Your task to perform on an android device: Add dell alienware to the cart on bestbuy, then select checkout. Image 0: 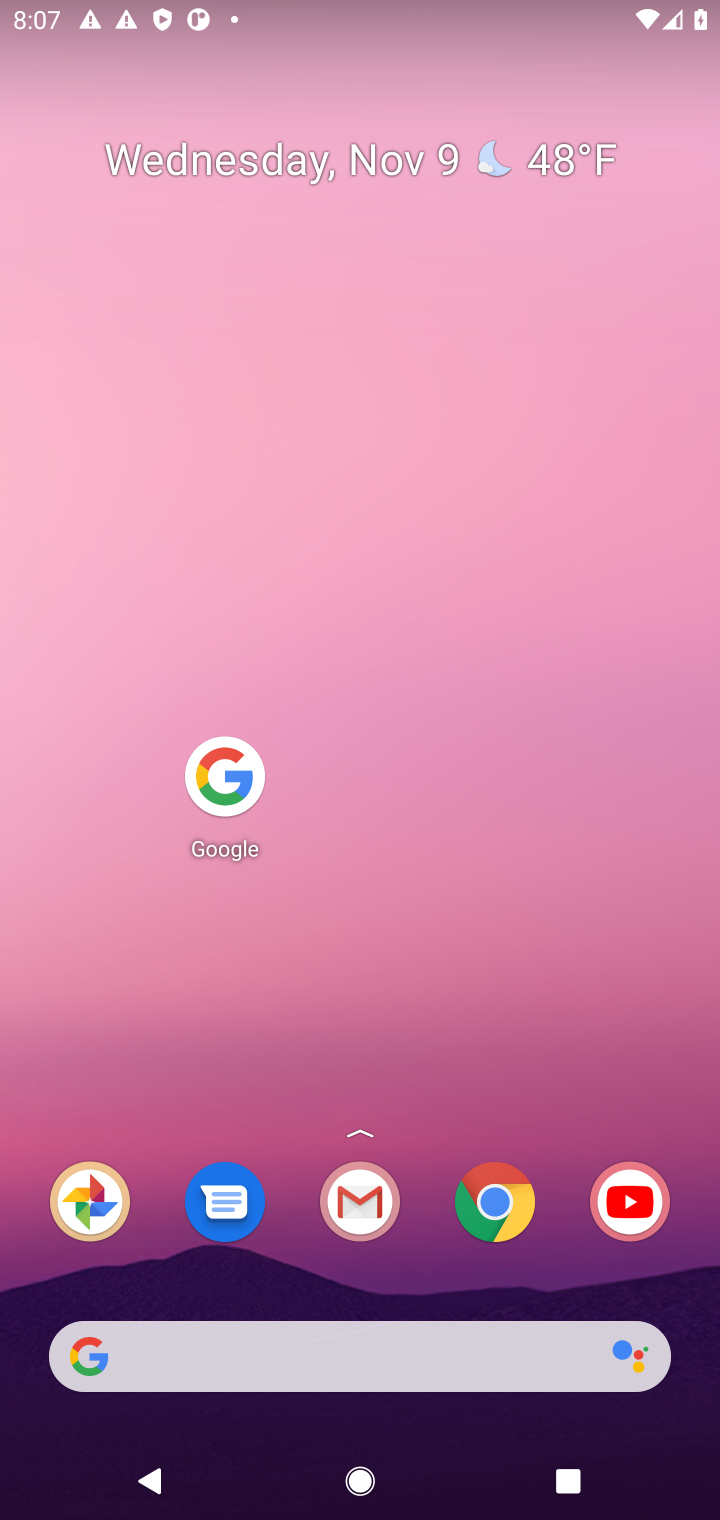
Step 0: click (220, 768)
Your task to perform on an android device: Add dell alienware to the cart on bestbuy, then select checkout. Image 1: 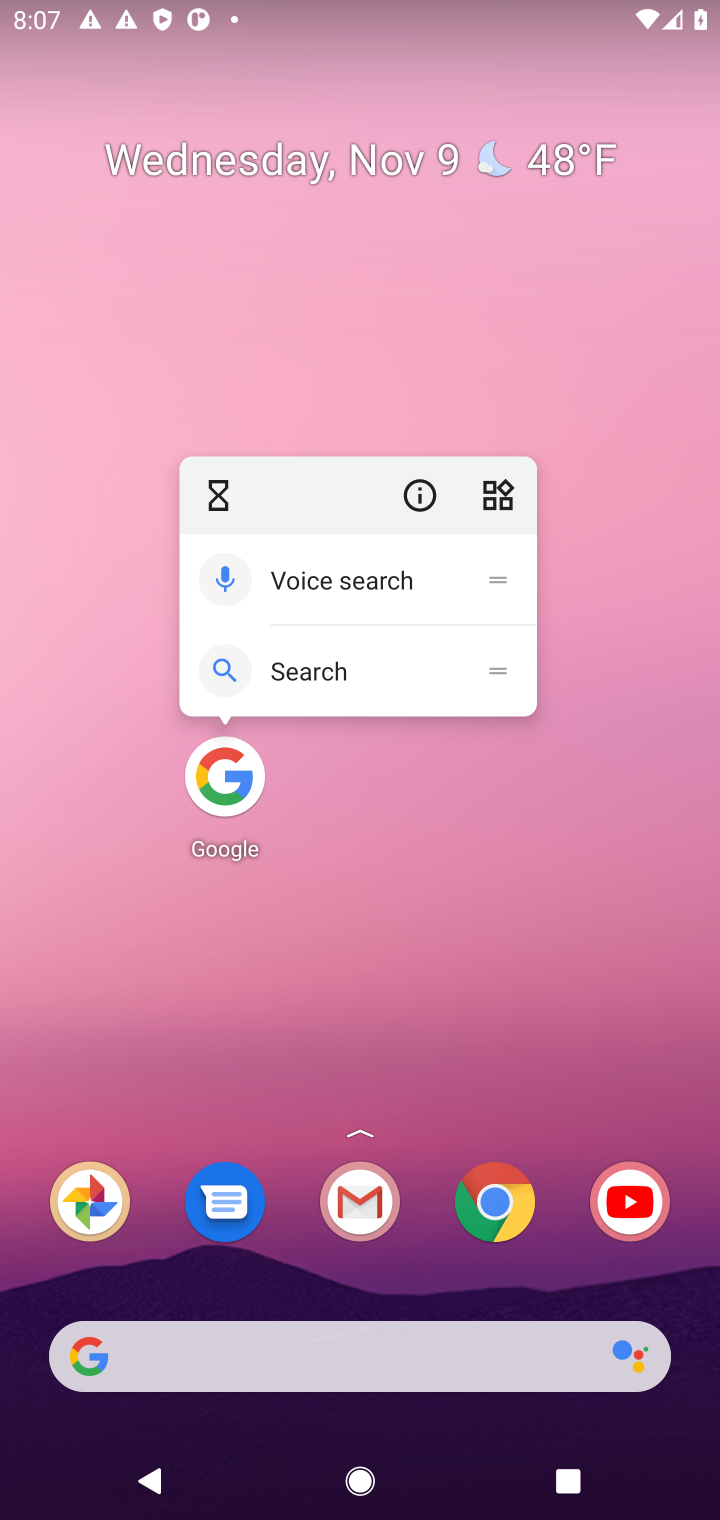
Step 1: click (224, 765)
Your task to perform on an android device: Add dell alienware to the cart on bestbuy, then select checkout. Image 2: 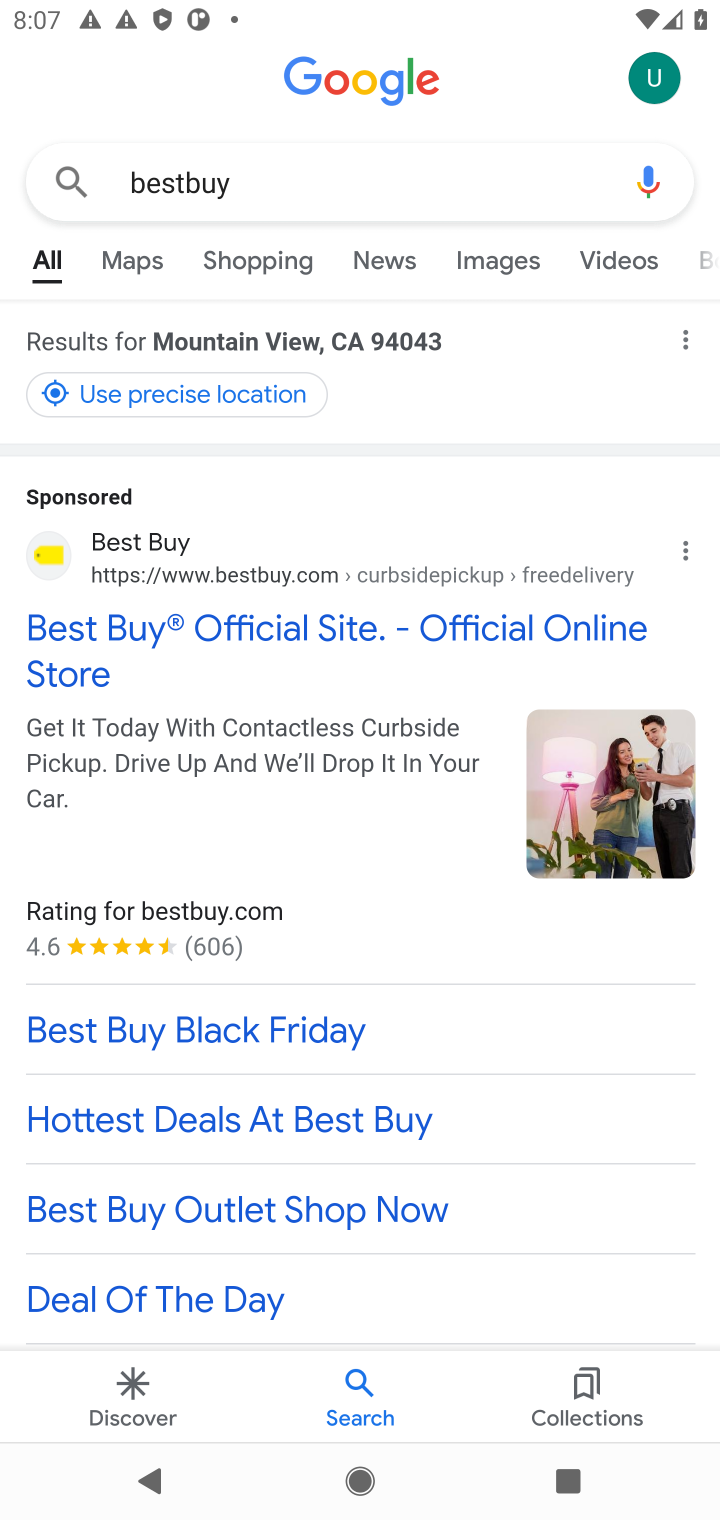
Step 2: click (135, 623)
Your task to perform on an android device: Add dell alienware to the cart on bestbuy, then select checkout. Image 3: 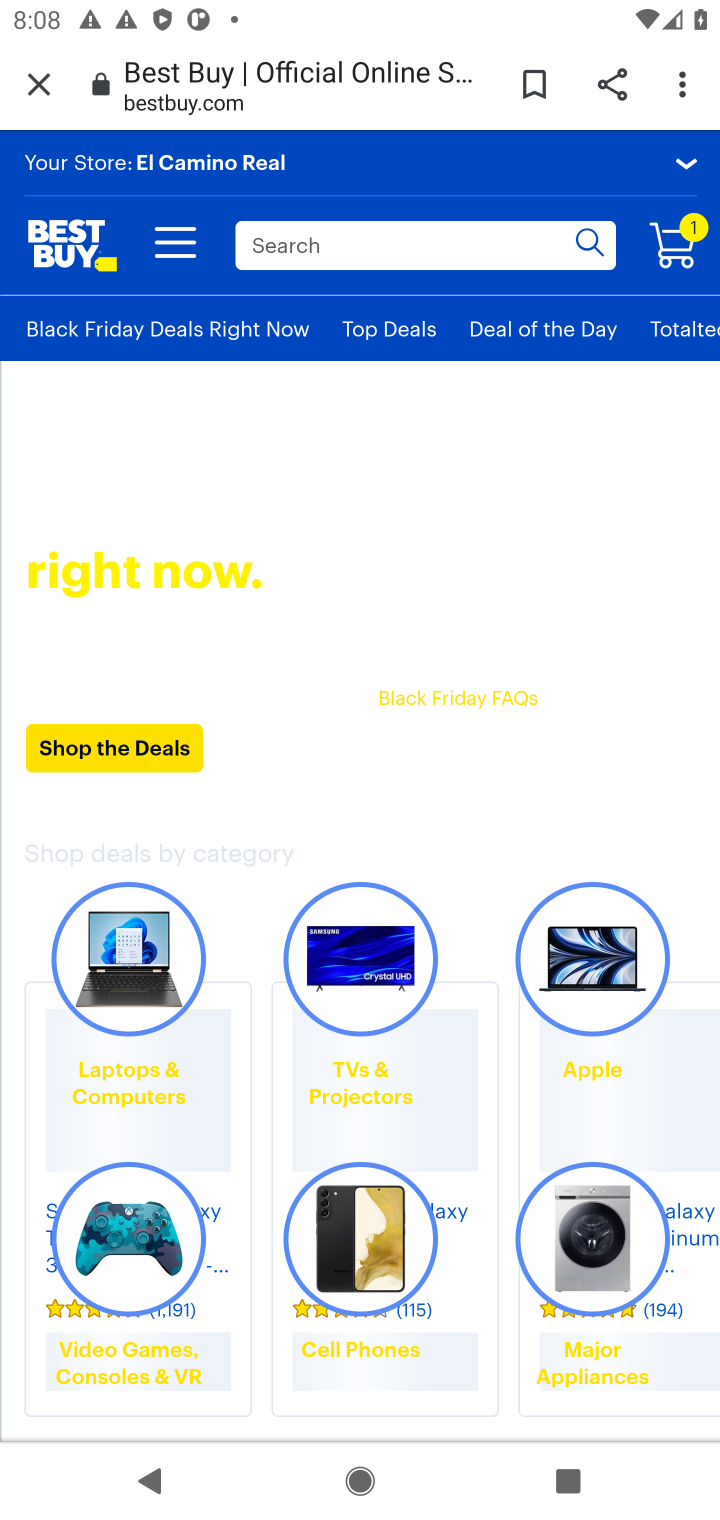
Step 3: press enter
Your task to perform on an android device: Add dell alienware to the cart on bestbuy, then select checkout. Image 4: 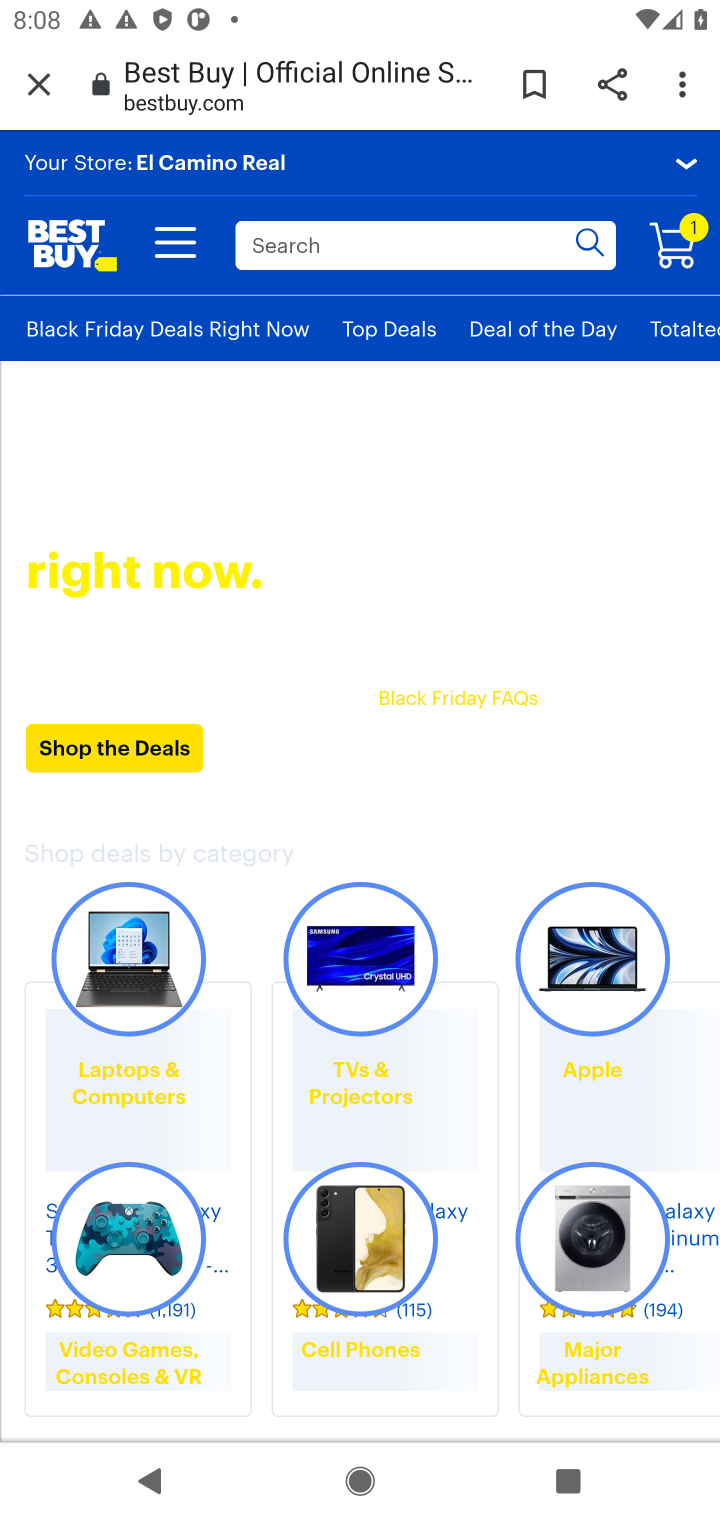
Step 4: type " dell alienware"
Your task to perform on an android device: Add dell alienware to the cart on bestbuy, then select checkout. Image 5: 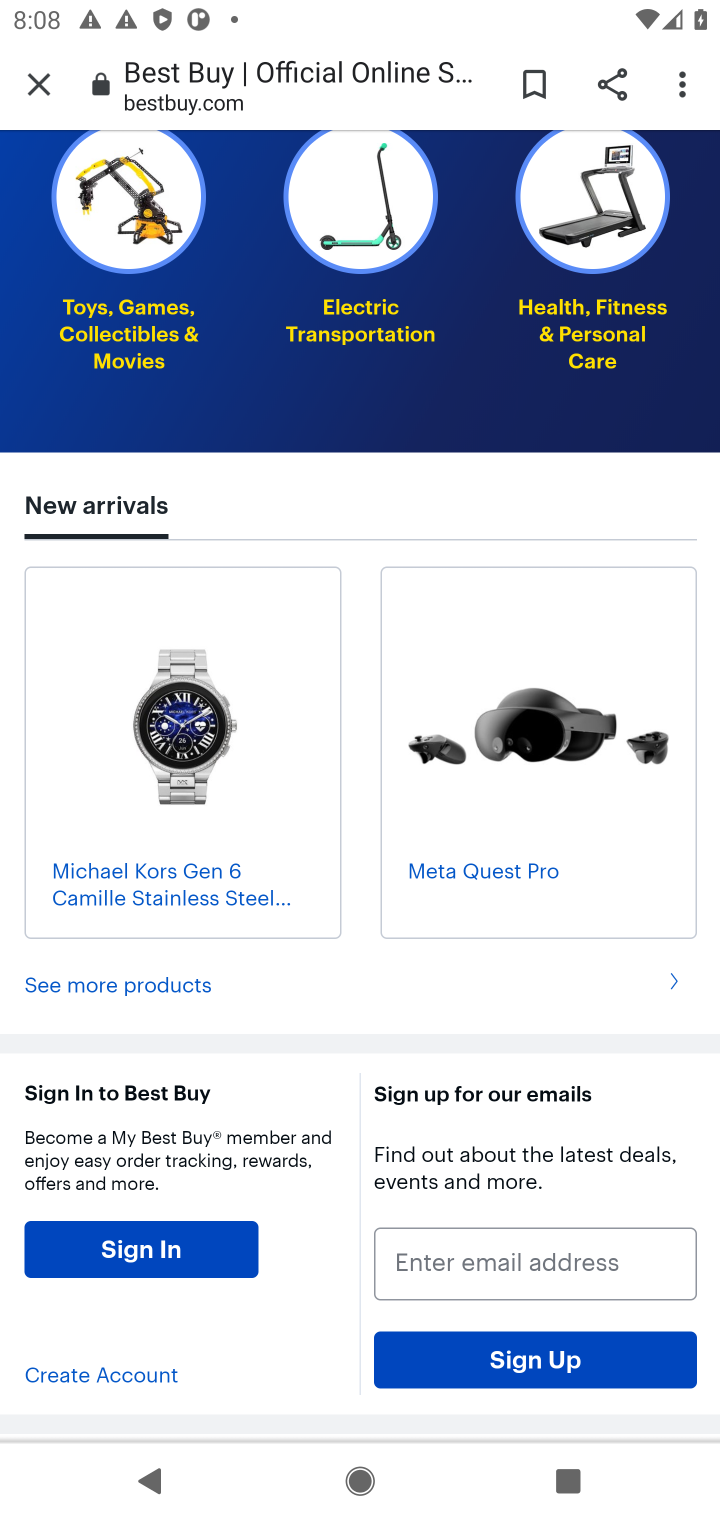
Step 5: drag from (481, 341) to (558, 1268)
Your task to perform on an android device: Add dell alienware to the cart on bestbuy, then select checkout. Image 6: 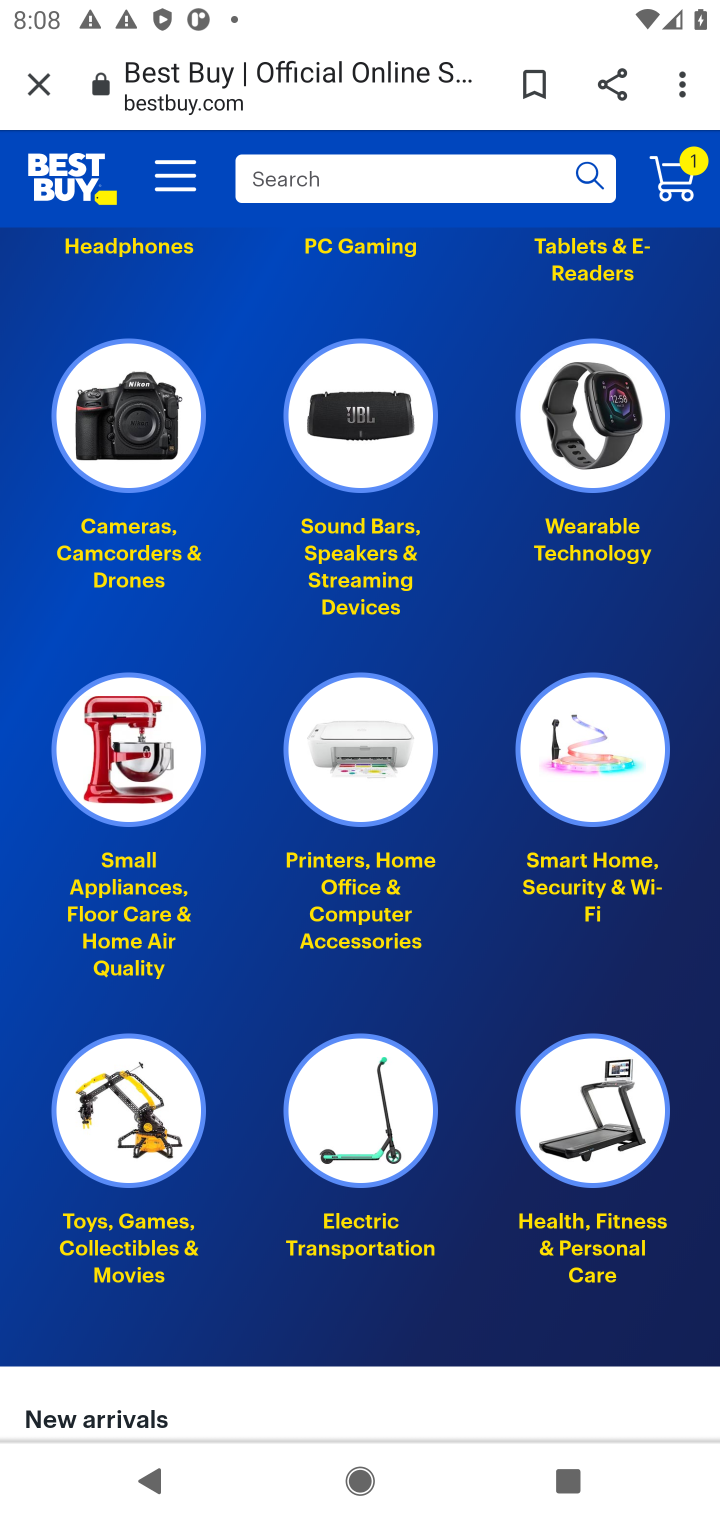
Step 6: click (404, 184)
Your task to perform on an android device: Add dell alienware to the cart on bestbuy, then select checkout. Image 7: 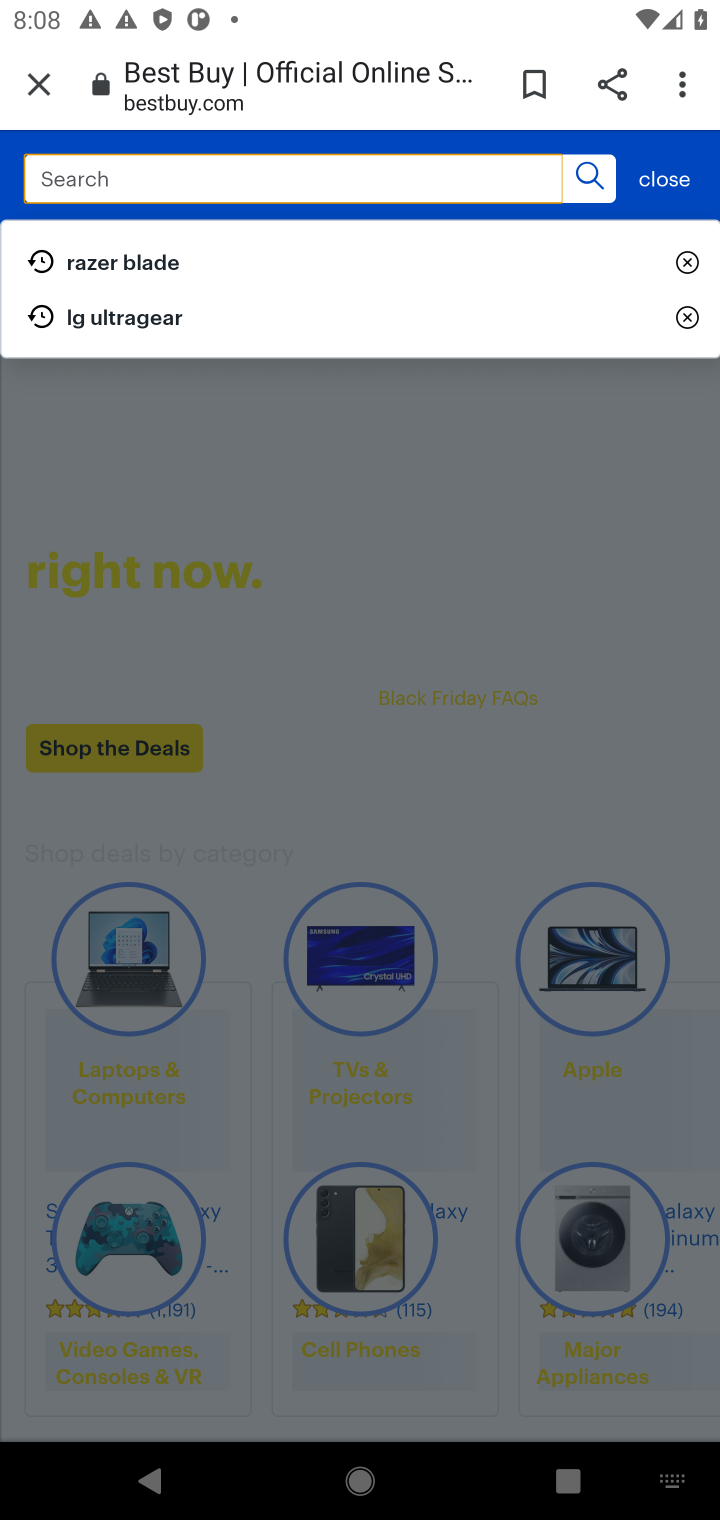
Step 7: type " dell alienware"
Your task to perform on an android device: Add dell alienware to the cart on bestbuy, then select checkout. Image 8: 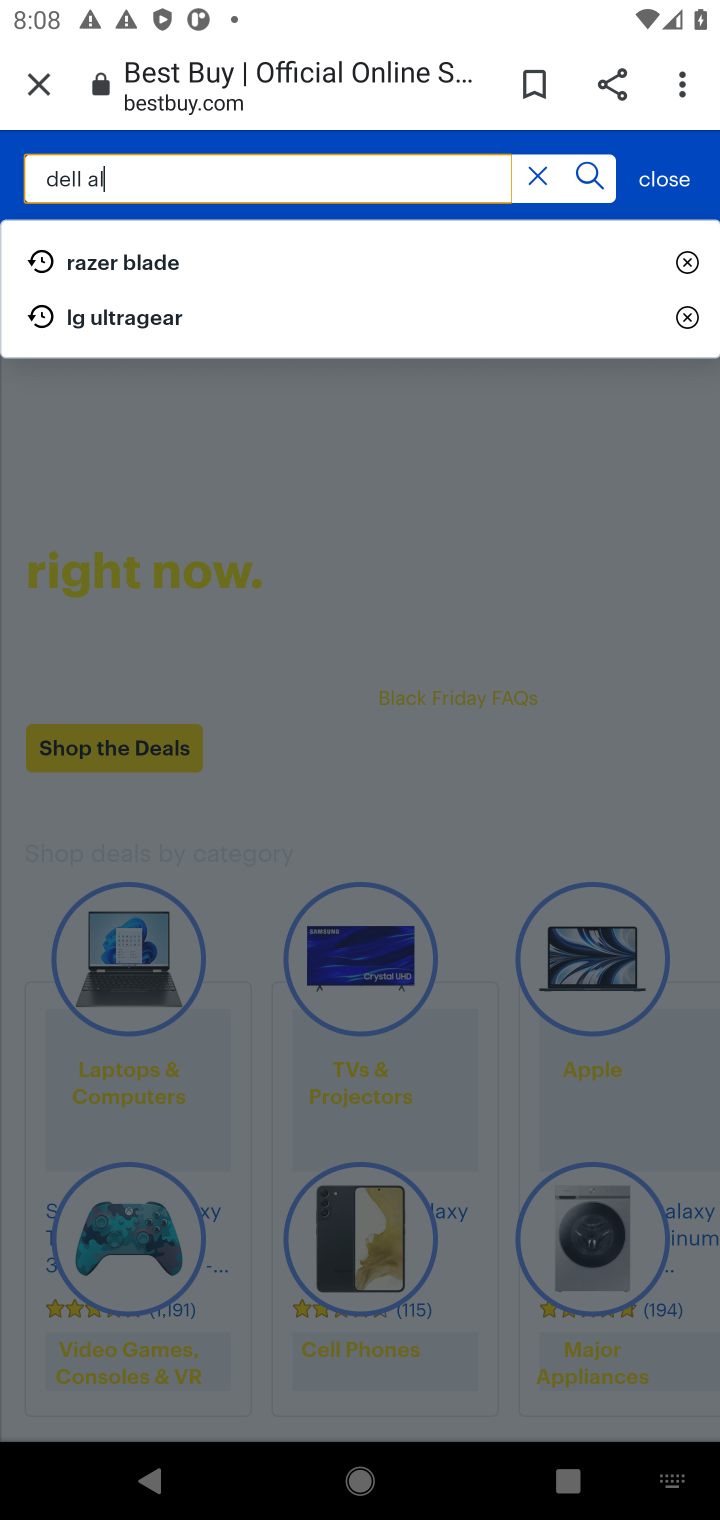
Step 8: press enter
Your task to perform on an android device: Add dell alienware to the cart on bestbuy, then select checkout. Image 9: 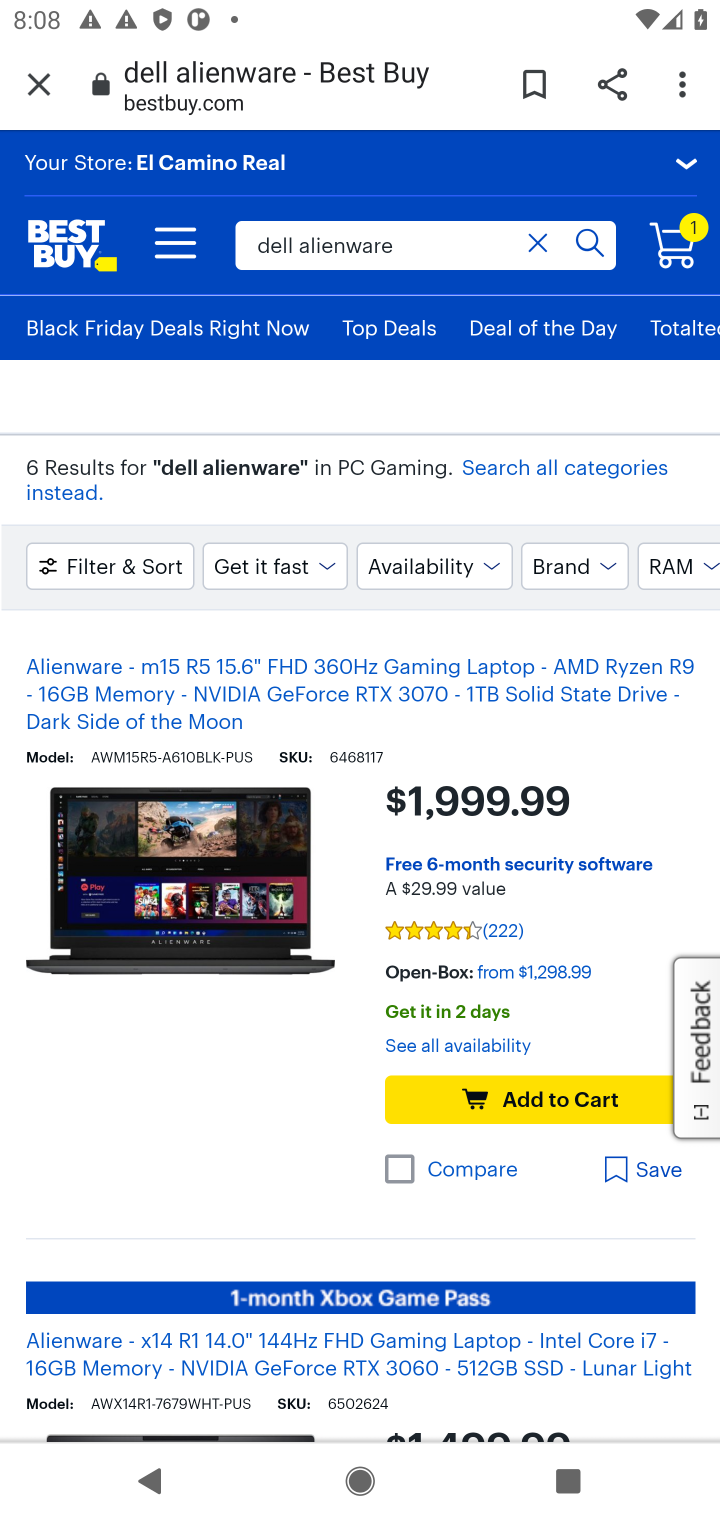
Step 9: drag from (247, 1166) to (516, 585)
Your task to perform on an android device: Add dell alienware to the cart on bestbuy, then select checkout. Image 10: 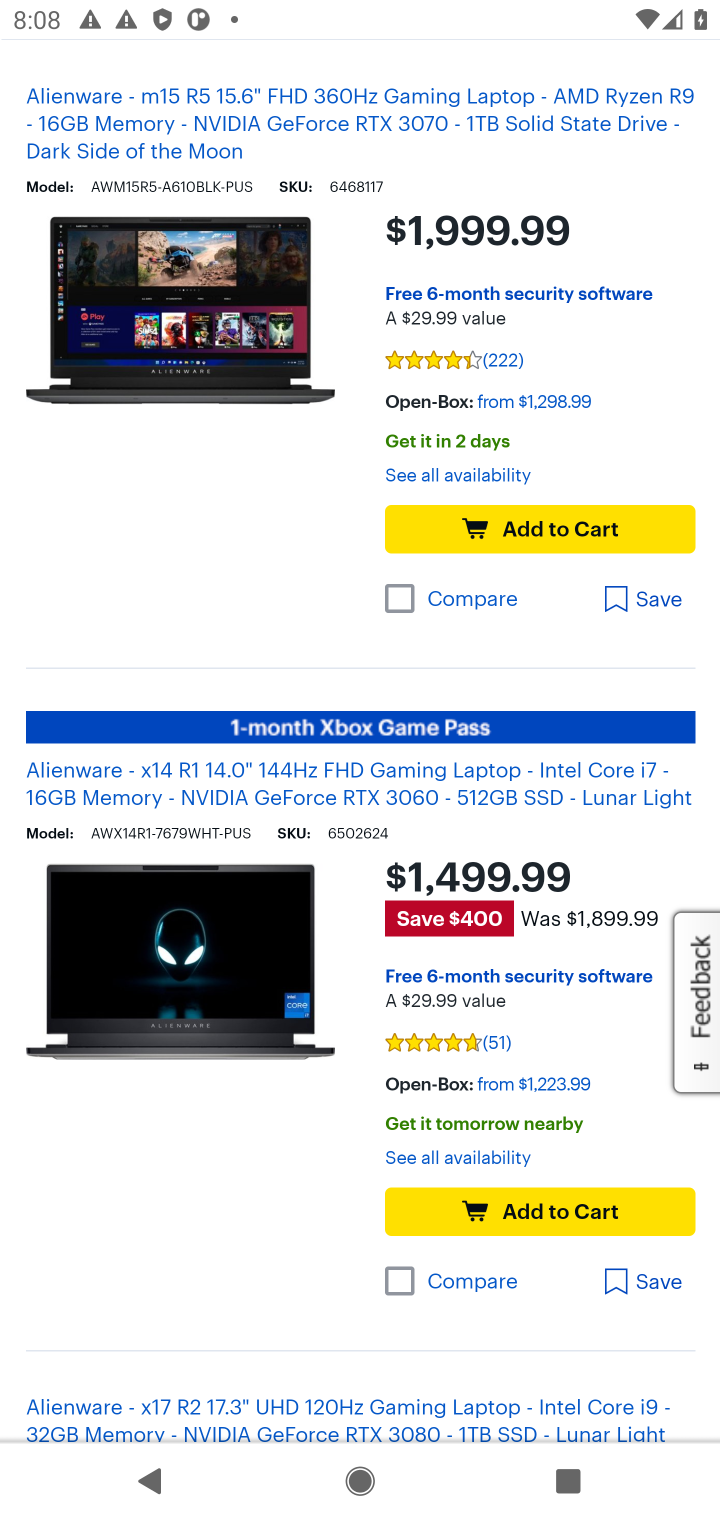
Step 10: drag from (267, 1191) to (675, 602)
Your task to perform on an android device: Add dell alienware to the cart on bestbuy, then select checkout. Image 11: 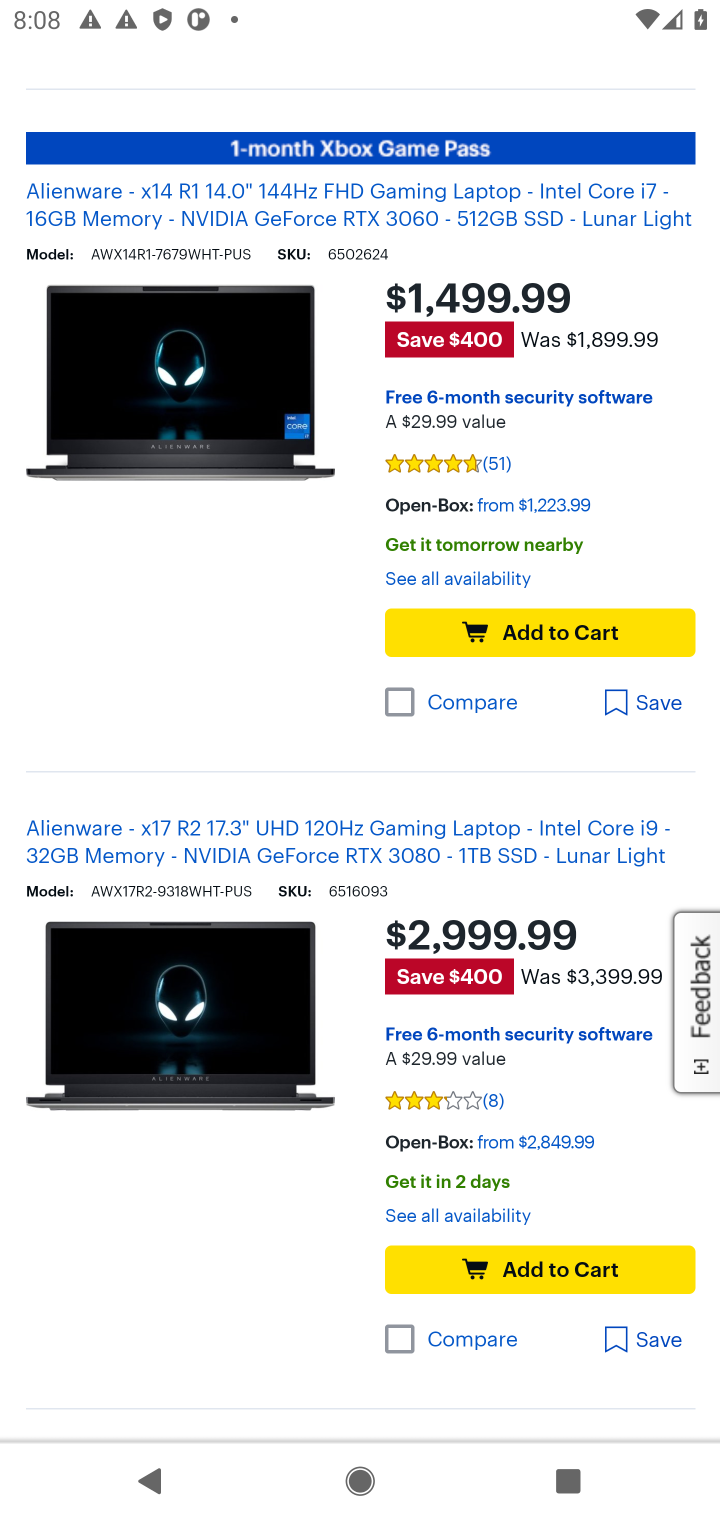
Step 11: drag from (320, 1237) to (512, 712)
Your task to perform on an android device: Add dell alienware to the cart on bestbuy, then select checkout. Image 12: 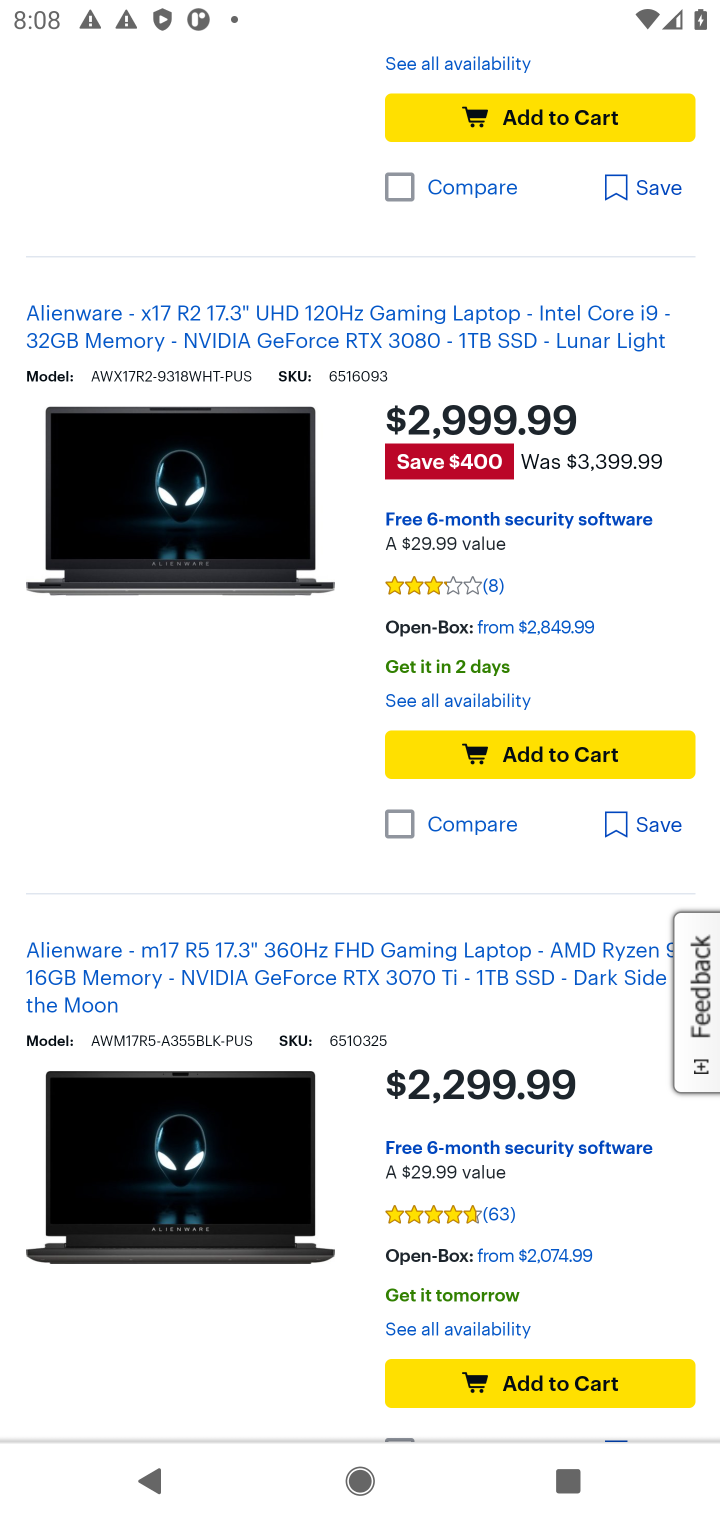
Step 12: drag from (549, 240) to (340, 1197)
Your task to perform on an android device: Add dell alienware to the cart on bestbuy, then select checkout. Image 13: 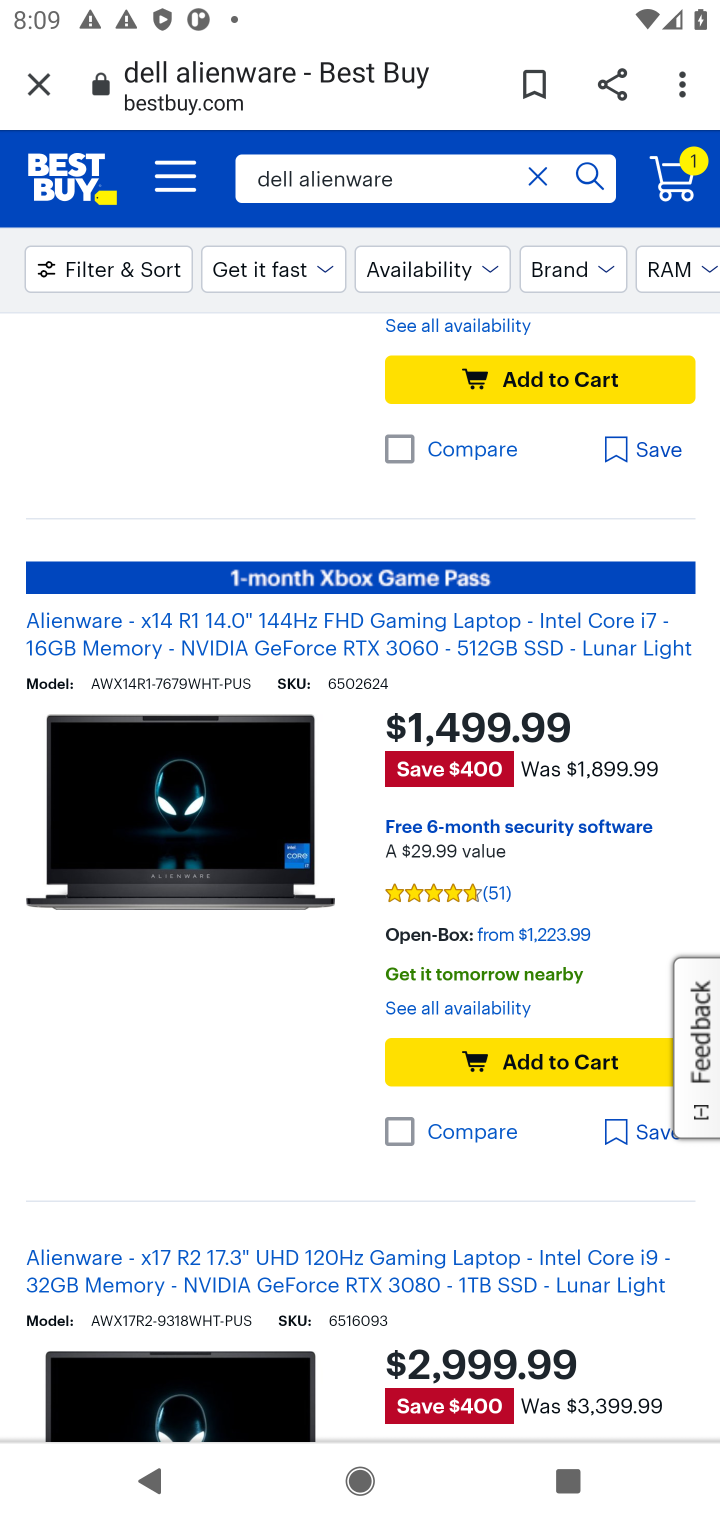
Step 13: drag from (472, 497) to (375, 1250)
Your task to perform on an android device: Add dell alienware to the cart on bestbuy, then select checkout. Image 14: 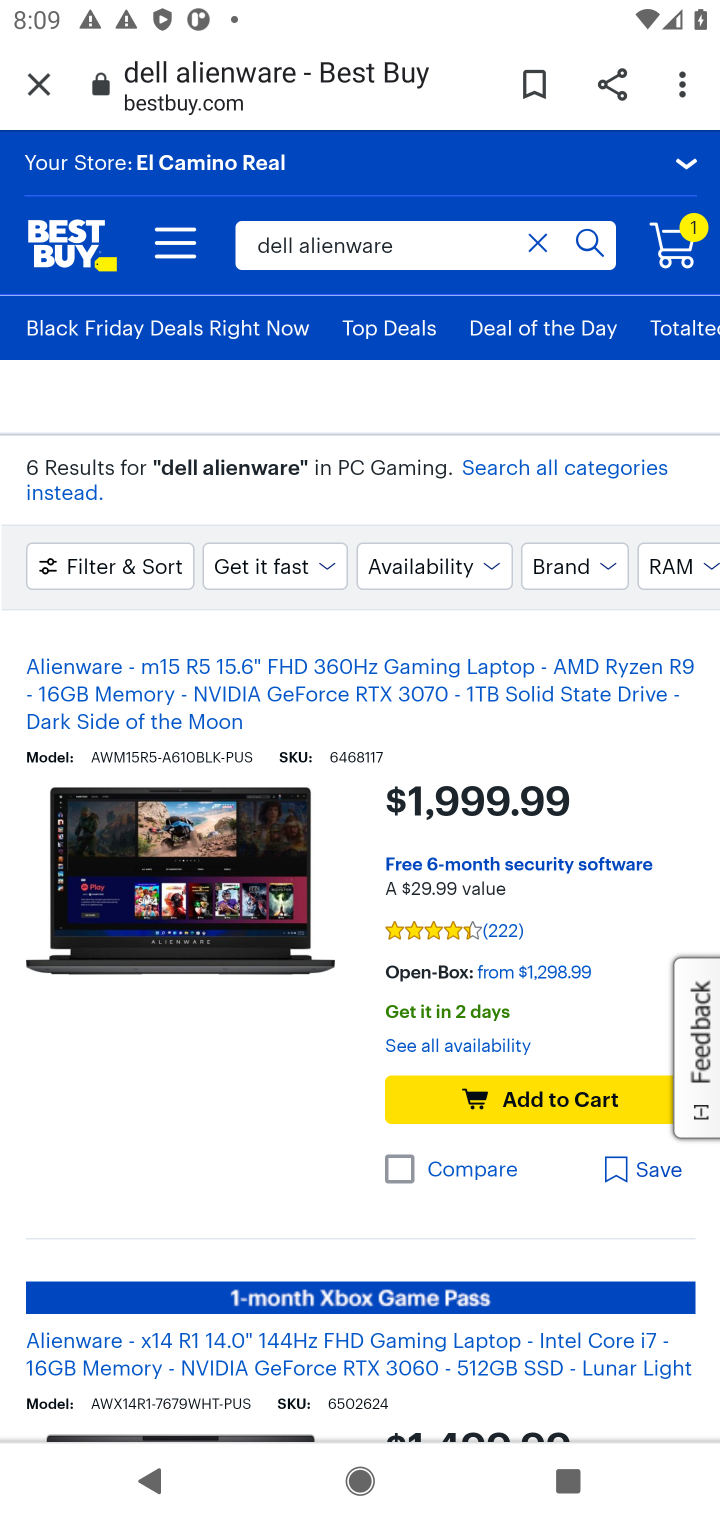
Step 14: click (584, 1100)
Your task to perform on an android device: Add dell alienware to the cart on bestbuy, then select checkout. Image 15: 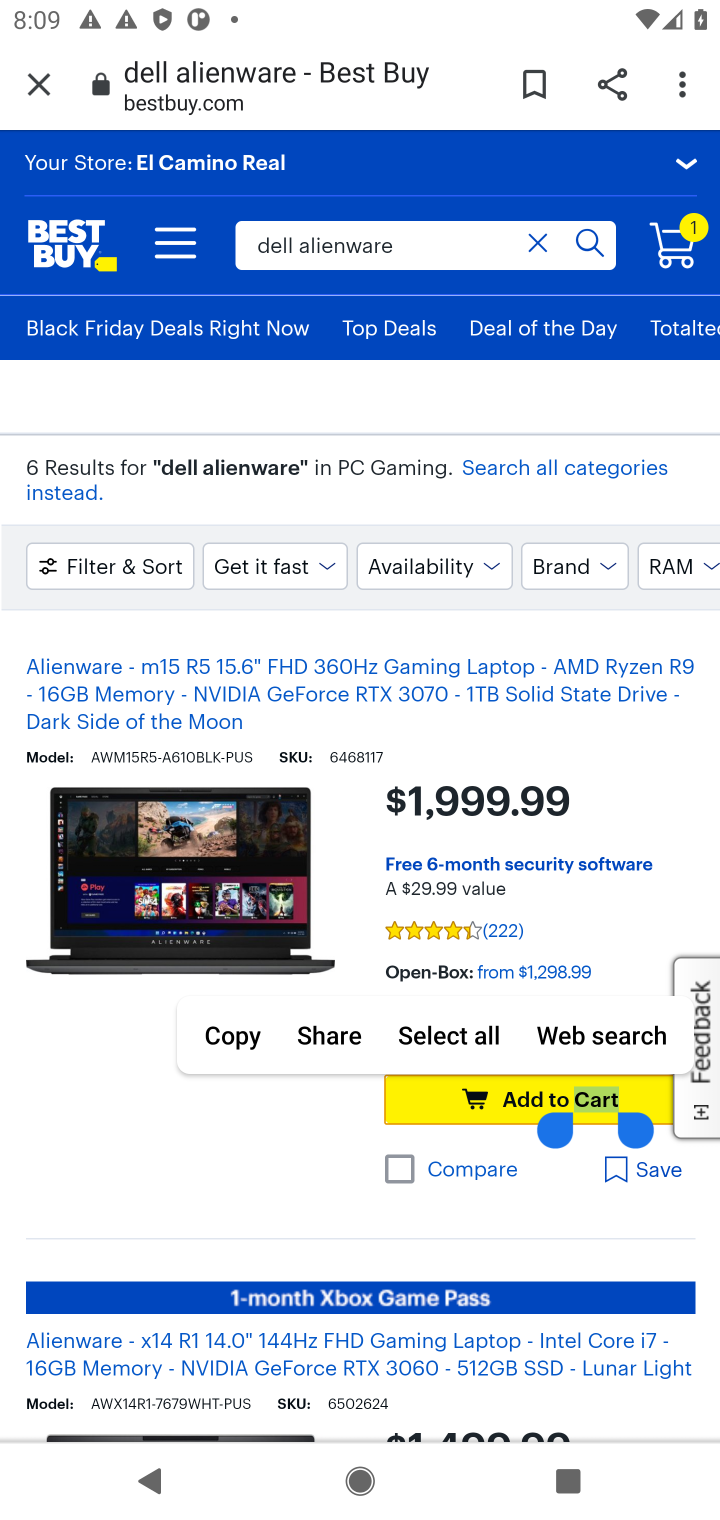
Step 15: click (524, 1100)
Your task to perform on an android device: Add dell alienware to the cart on bestbuy, then select checkout. Image 16: 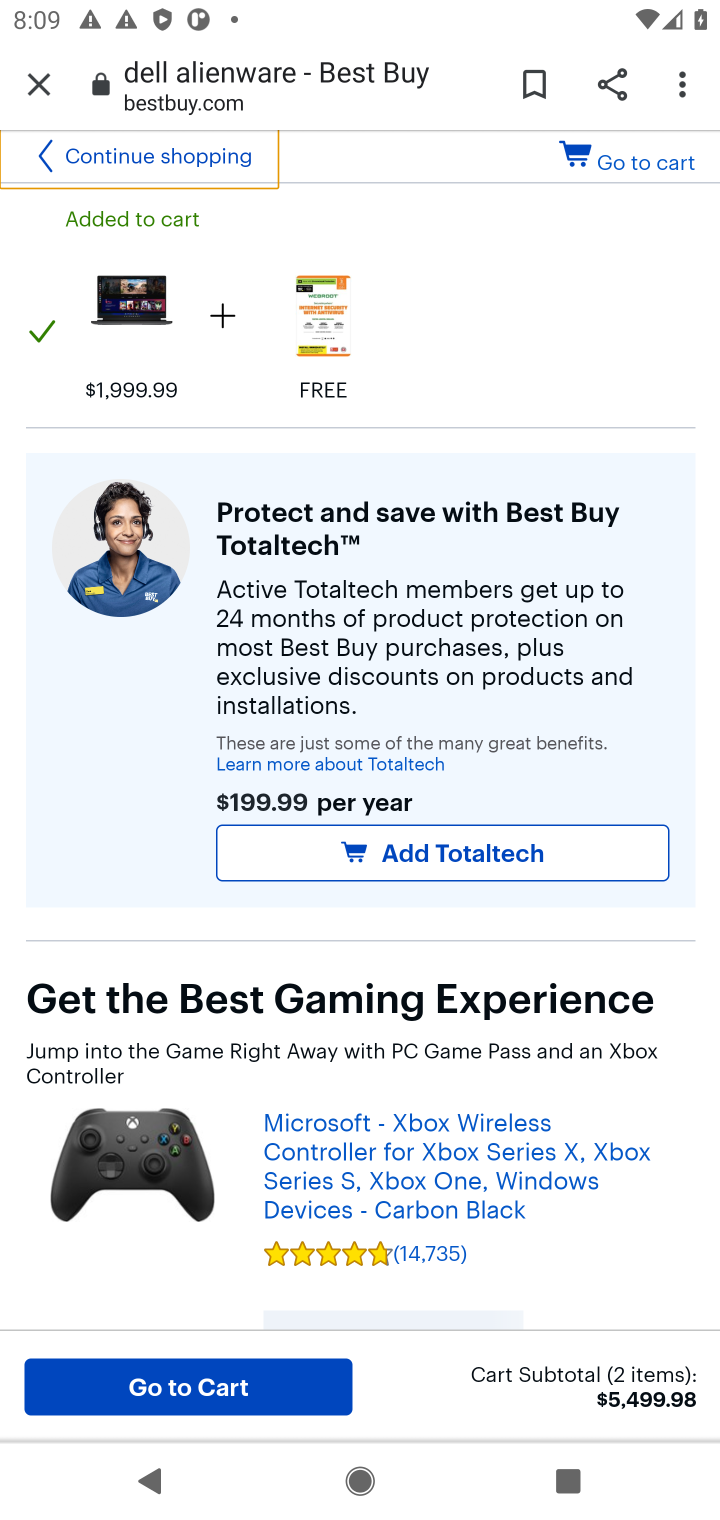
Step 16: click (653, 160)
Your task to perform on an android device: Add dell alienware to the cart on bestbuy, then select checkout. Image 17: 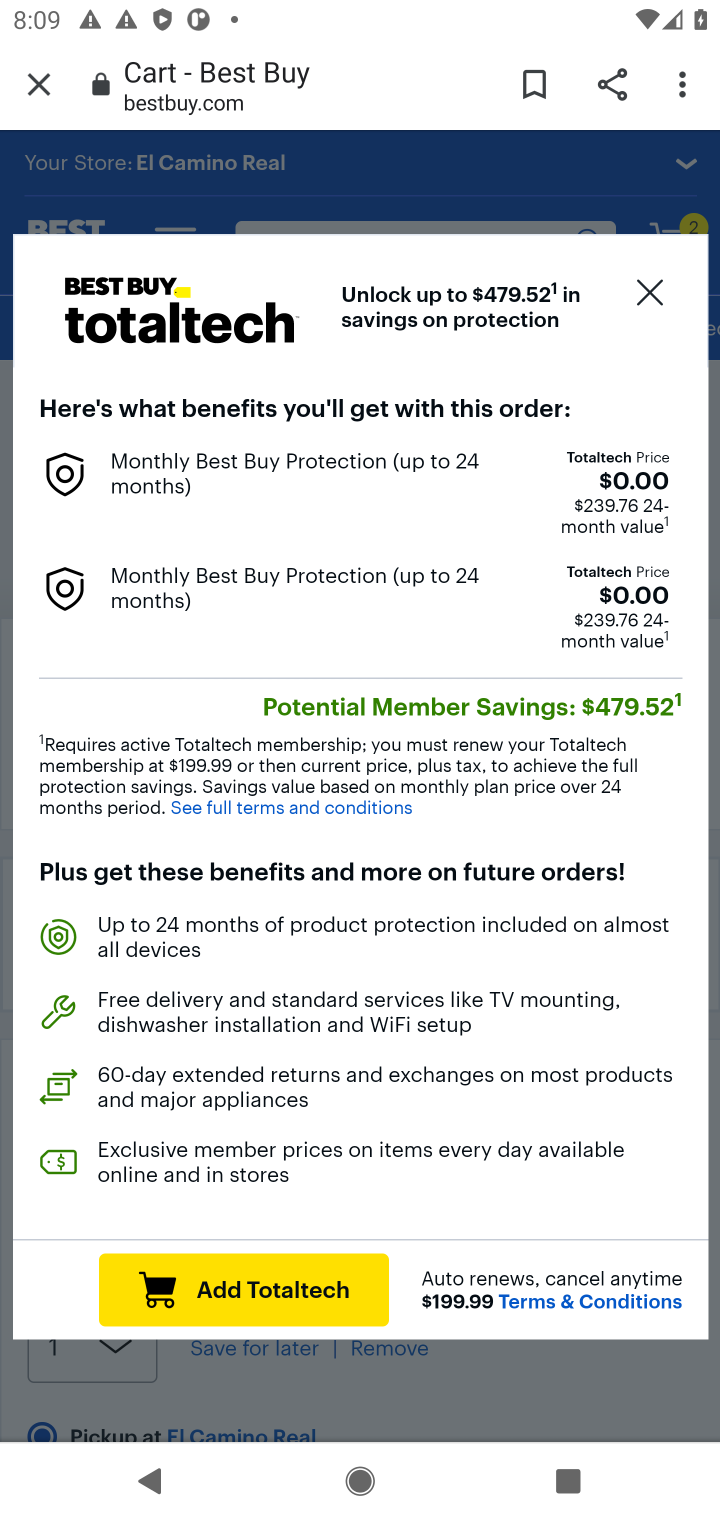
Step 17: click (644, 293)
Your task to perform on an android device: Add dell alienware to the cart on bestbuy, then select checkout. Image 18: 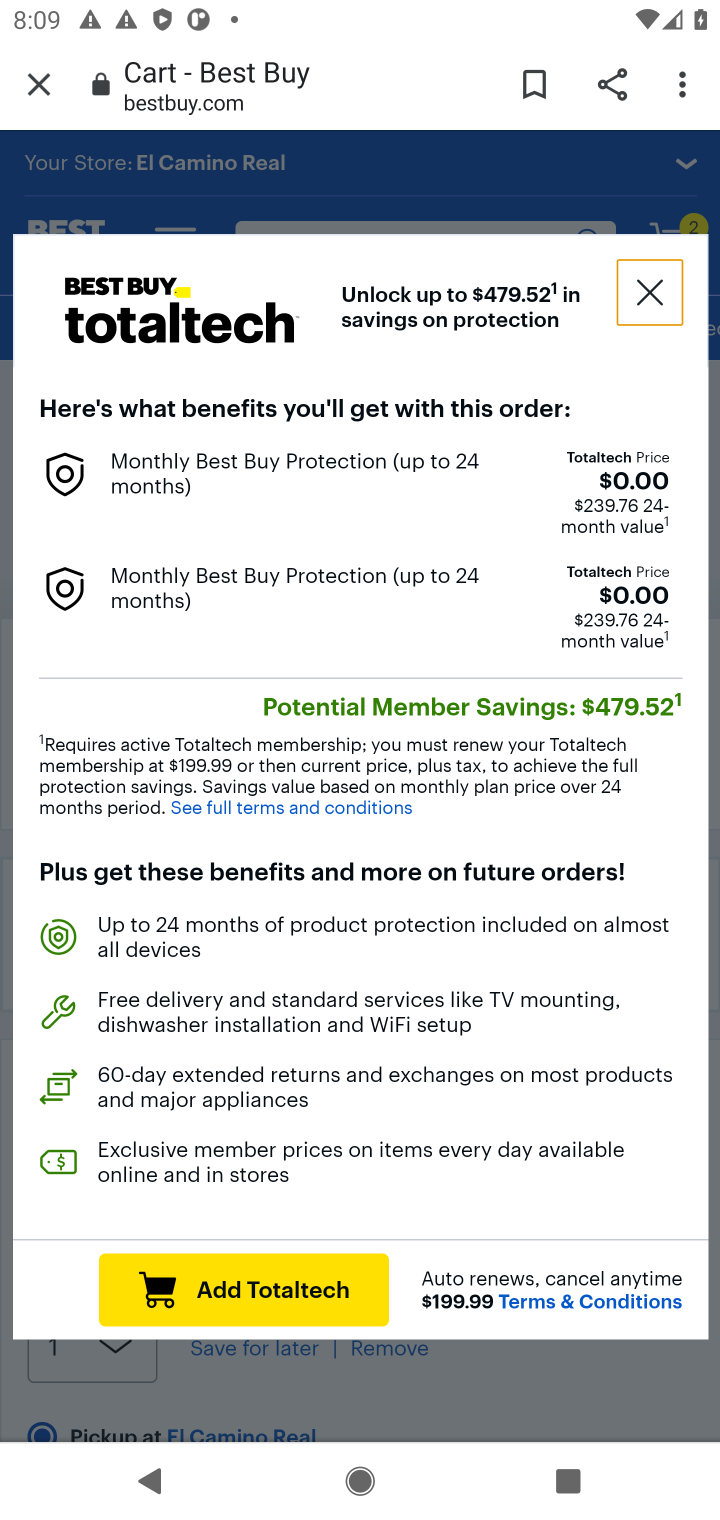
Step 18: click (650, 296)
Your task to perform on an android device: Add dell alienware to the cart on bestbuy, then select checkout. Image 19: 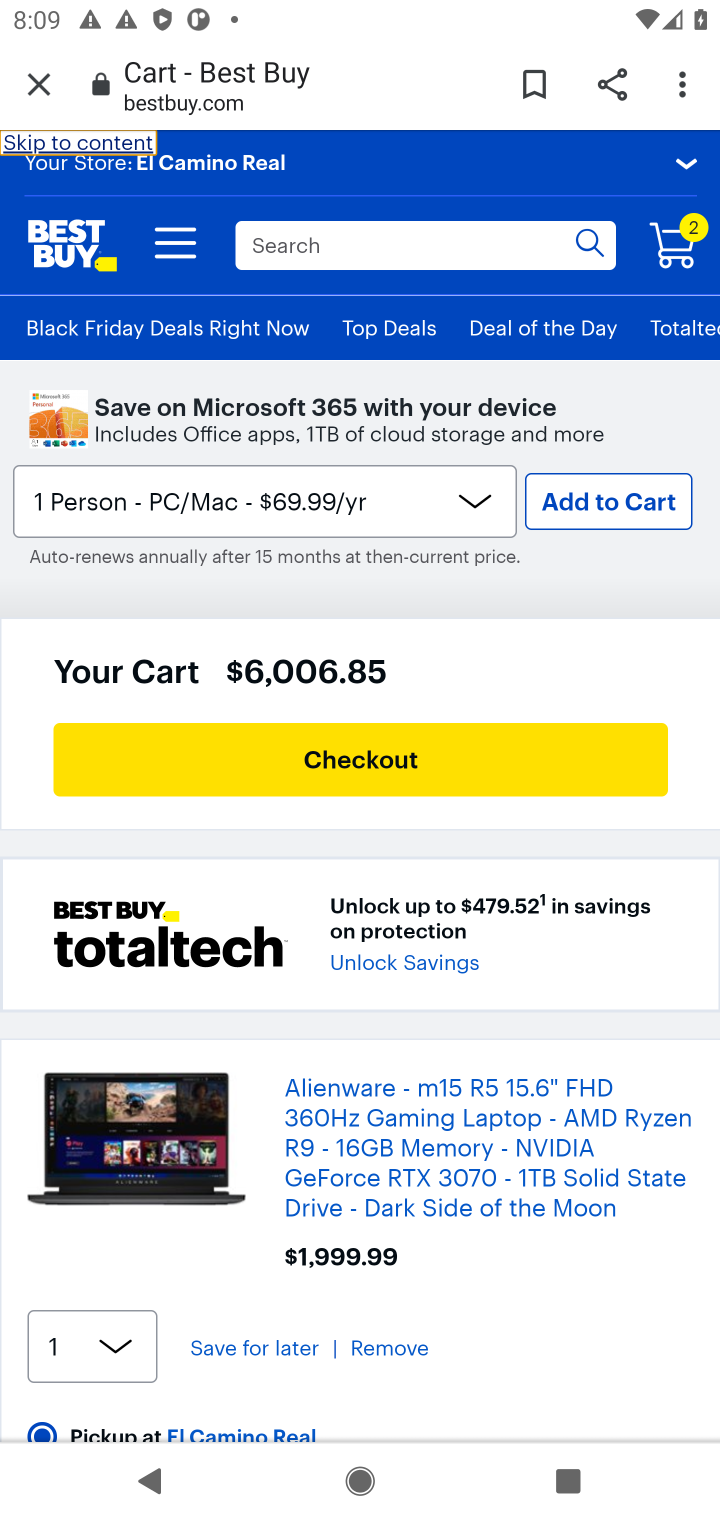
Step 19: drag from (340, 1225) to (687, 403)
Your task to perform on an android device: Add dell alienware to the cart on bestbuy, then select checkout. Image 20: 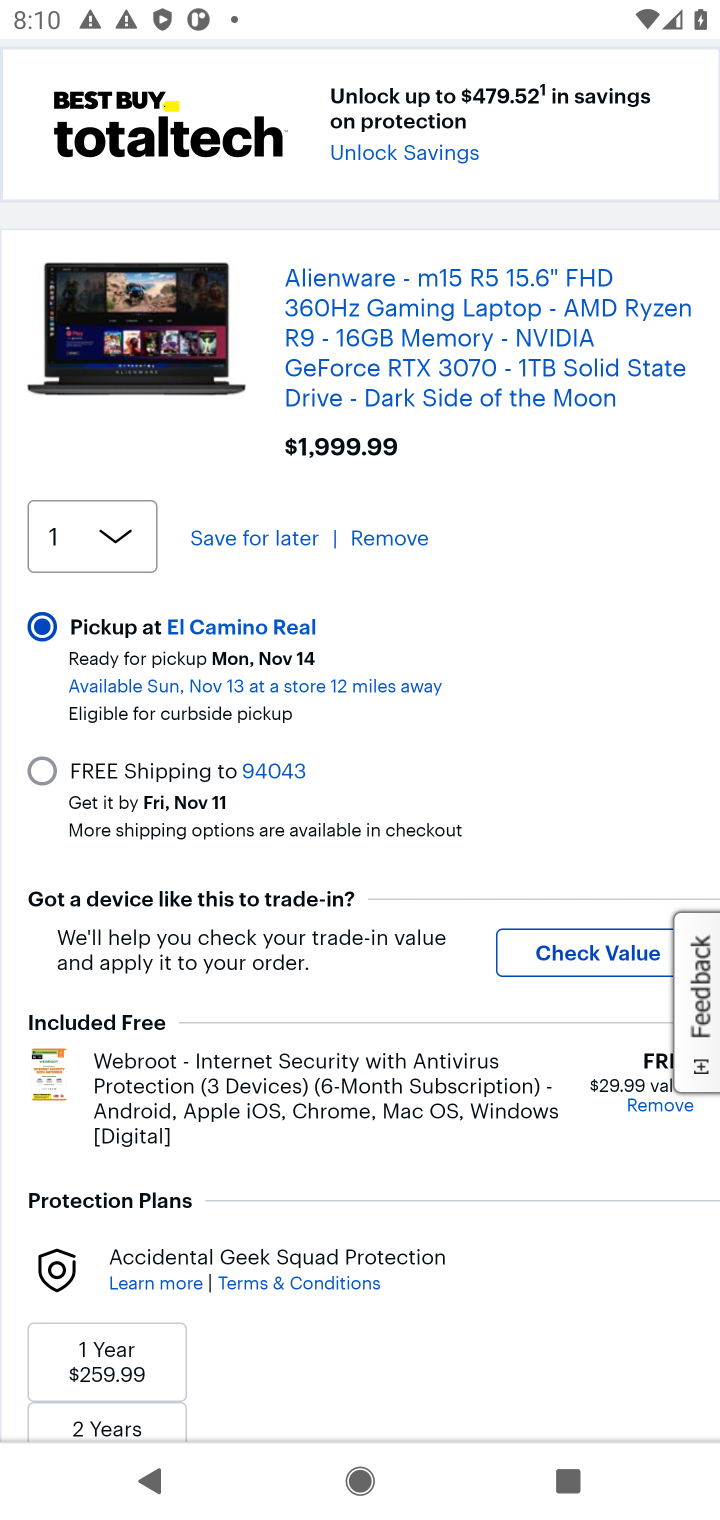
Step 20: drag from (310, 1312) to (609, 381)
Your task to perform on an android device: Add dell alienware to the cart on bestbuy, then select checkout. Image 21: 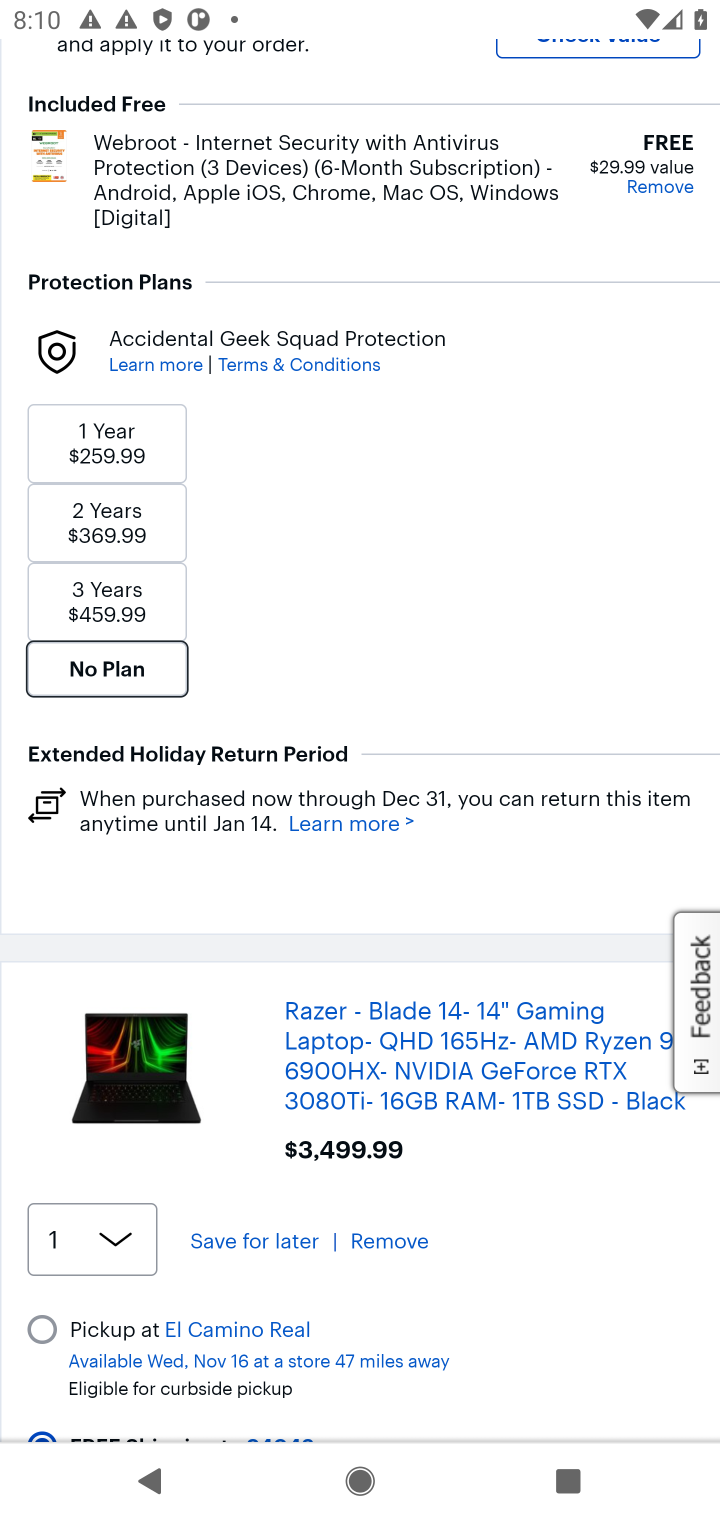
Step 21: click (386, 1242)
Your task to perform on an android device: Add dell alienware to the cart on bestbuy, then select checkout. Image 22: 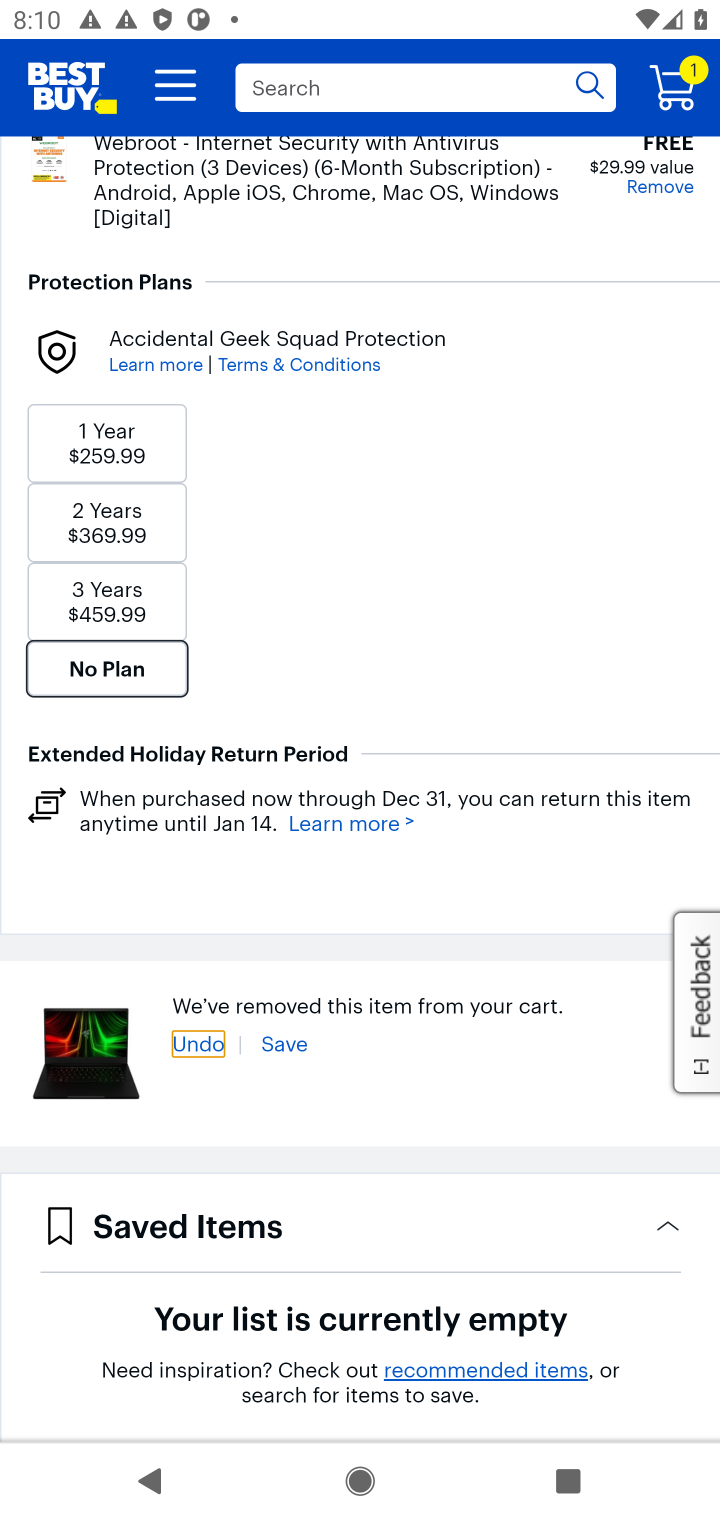
Step 22: drag from (518, 534) to (472, 1330)
Your task to perform on an android device: Add dell alienware to the cart on bestbuy, then select checkout. Image 23: 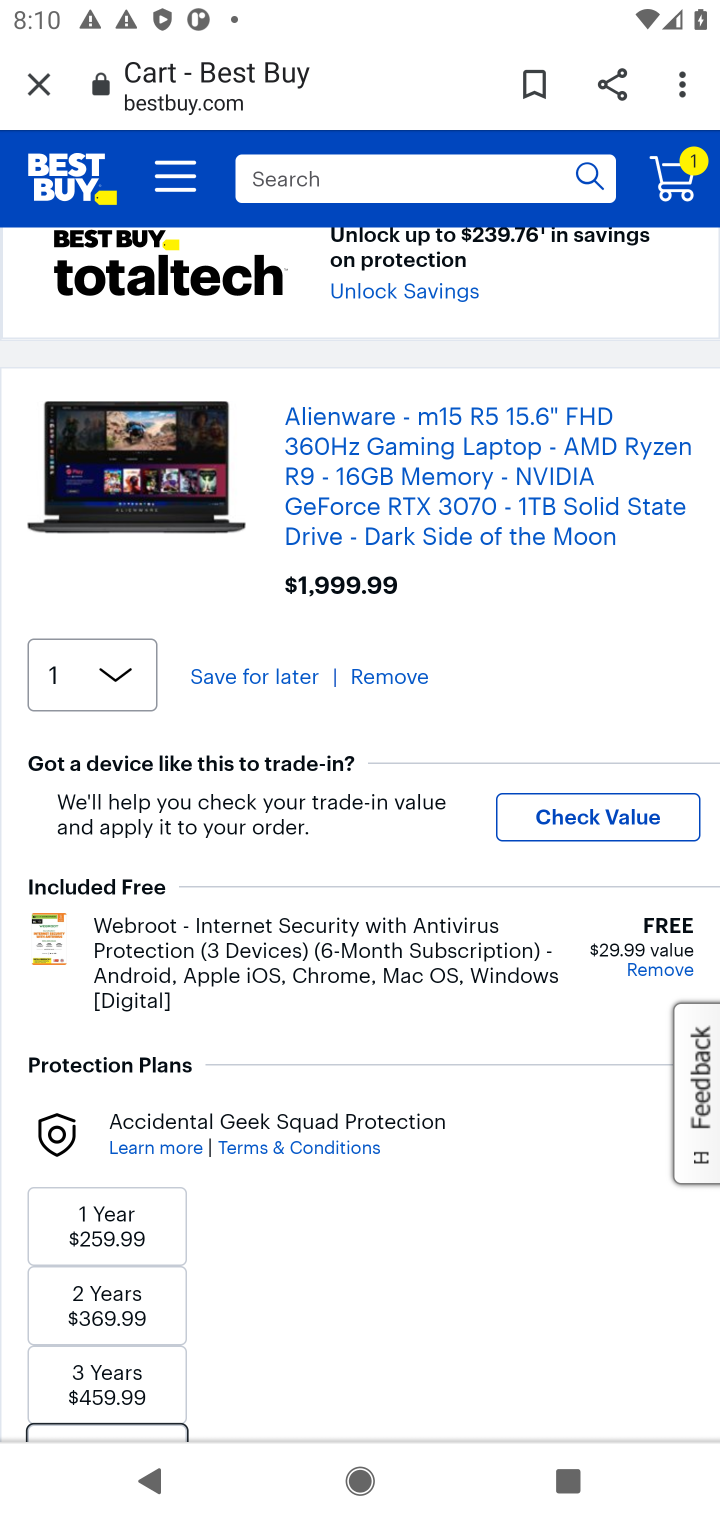
Step 23: drag from (508, 594) to (431, 1291)
Your task to perform on an android device: Add dell alienware to the cart on bestbuy, then select checkout. Image 24: 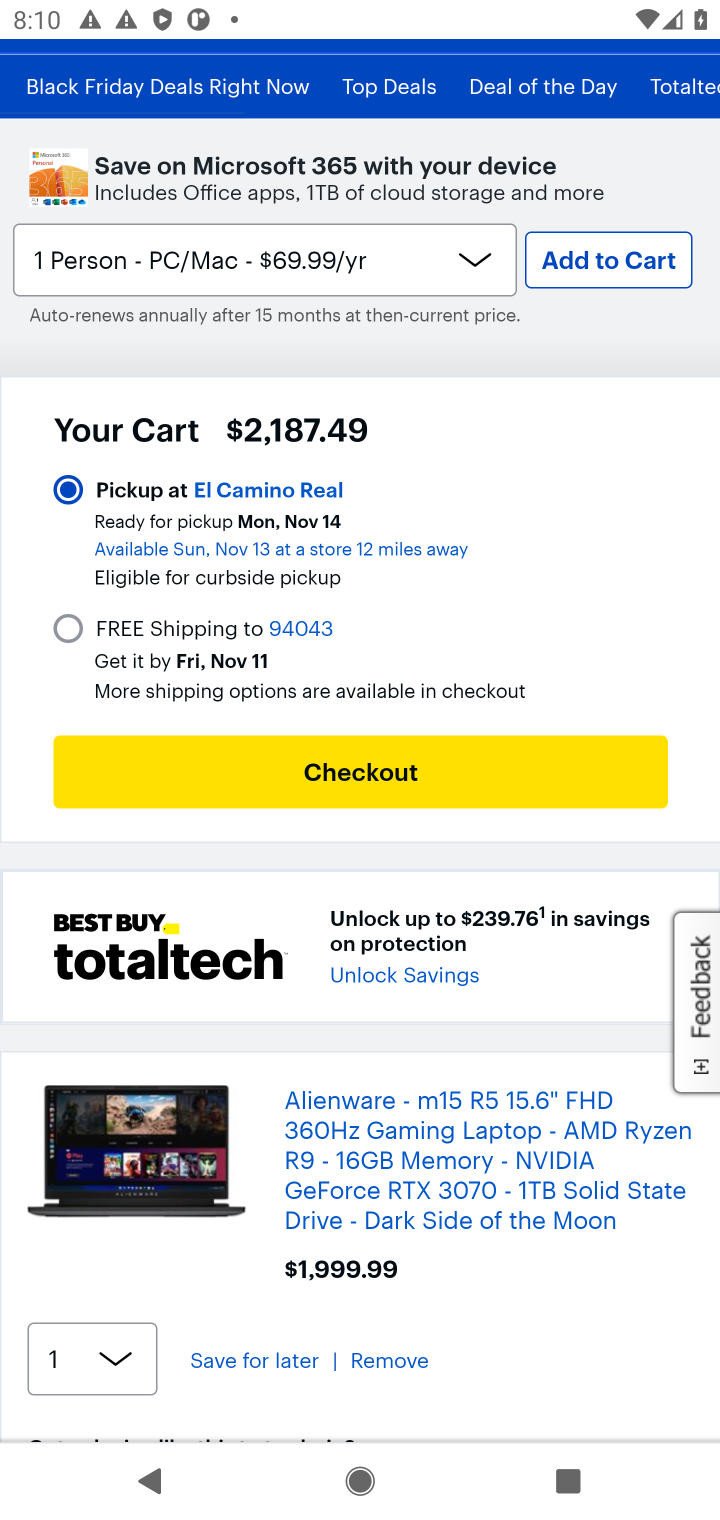
Step 24: click (350, 313)
Your task to perform on an android device: Add dell alienware to the cart on bestbuy, then select checkout. Image 25: 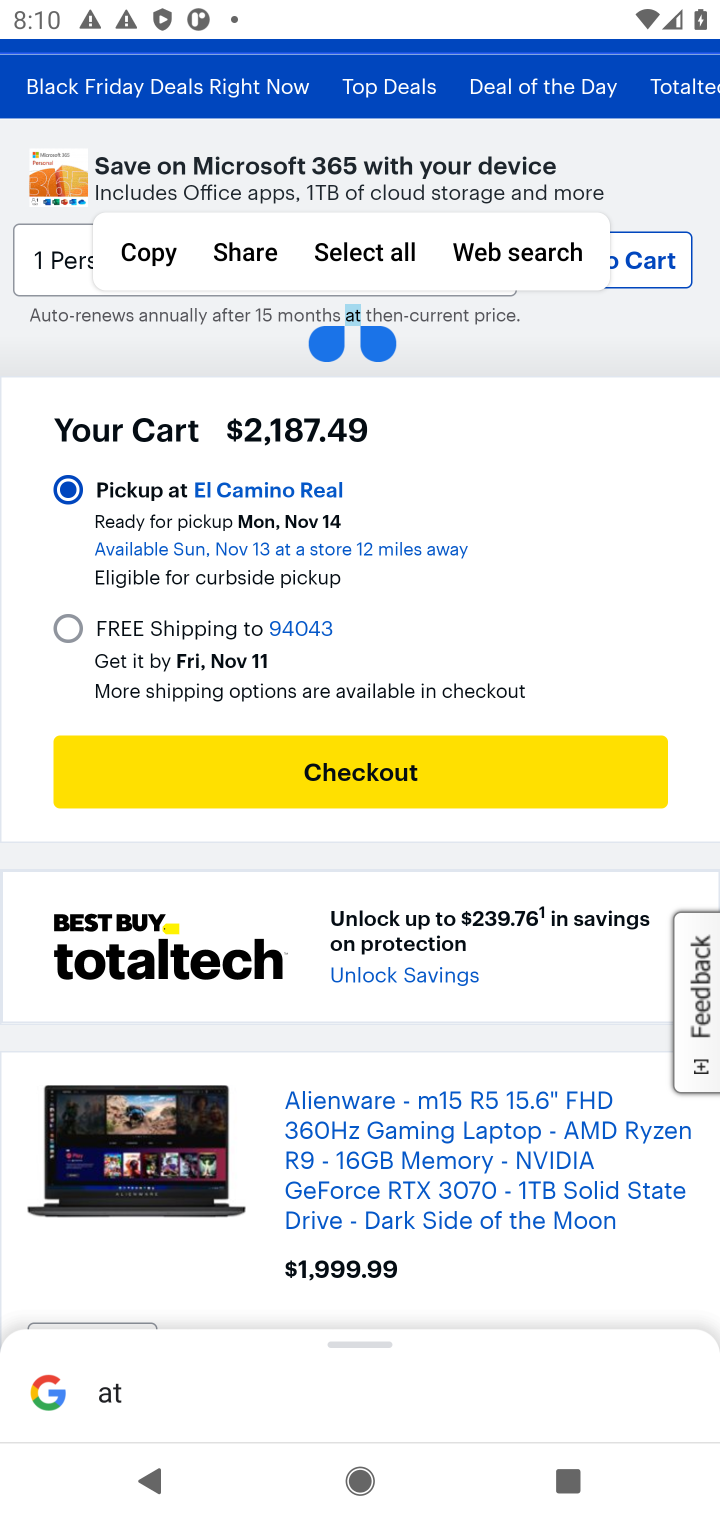
Step 25: click (384, 764)
Your task to perform on an android device: Add dell alienware to the cart on bestbuy, then select checkout. Image 26: 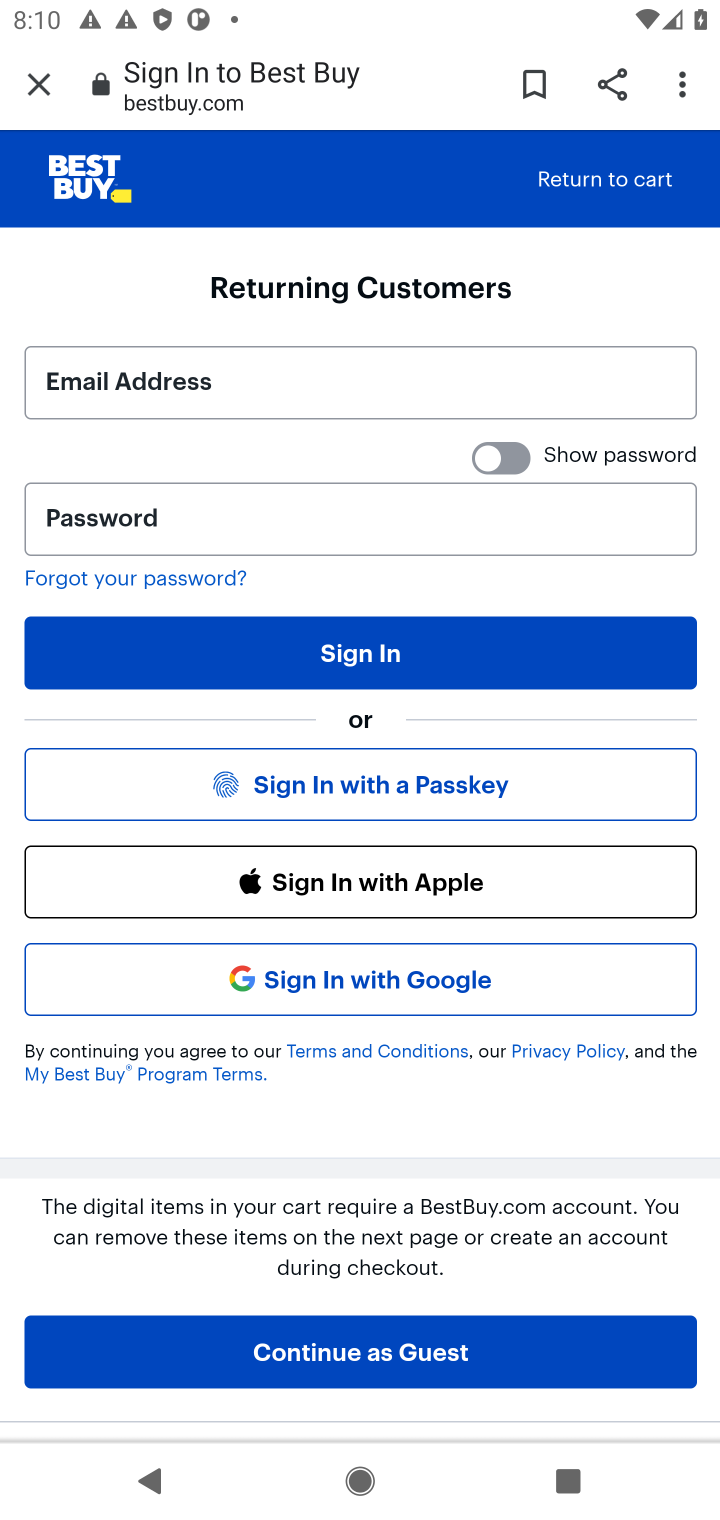
Step 26: task complete